Your task to perform on an android device: stop showing notifications on the lock screen Image 0: 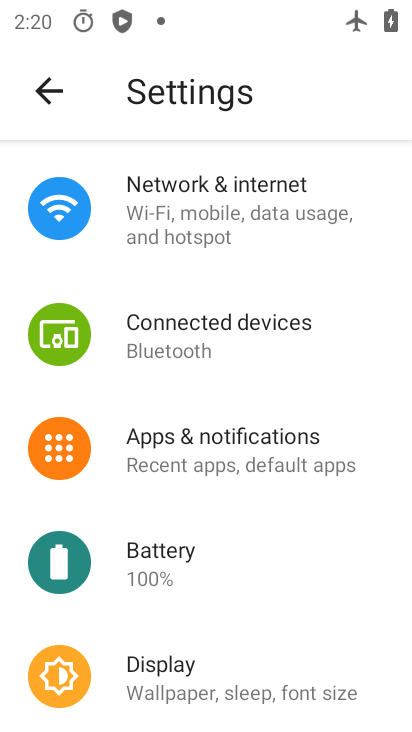
Step 0: drag from (207, 551) to (219, 102)
Your task to perform on an android device: stop showing notifications on the lock screen Image 1: 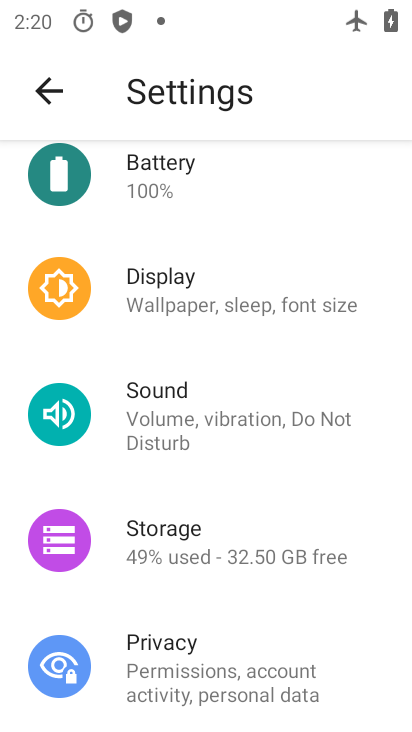
Step 1: drag from (216, 342) to (269, 730)
Your task to perform on an android device: stop showing notifications on the lock screen Image 2: 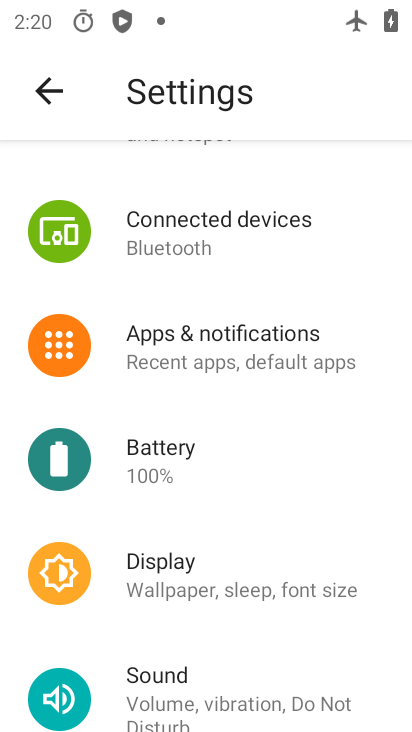
Step 2: click (189, 355)
Your task to perform on an android device: stop showing notifications on the lock screen Image 3: 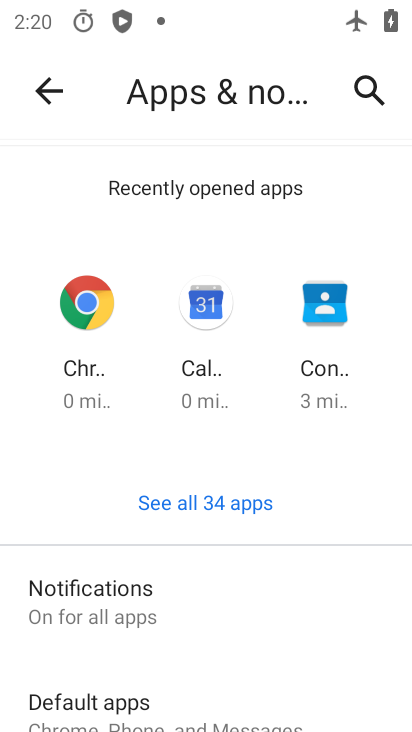
Step 3: drag from (271, 651) to (301, 163)
Your task to perform on an android device: stop showing notifications on the lock screen Image 4: 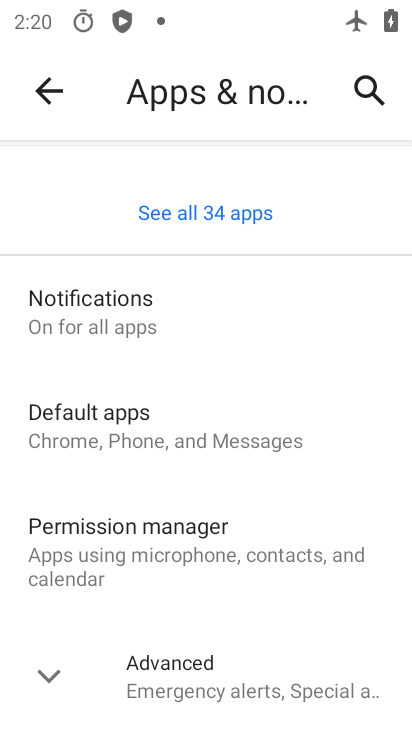
Step 4: click (68, 323)
Your task to perform on an android device: stop showing notifications on the lock screen Image 5: 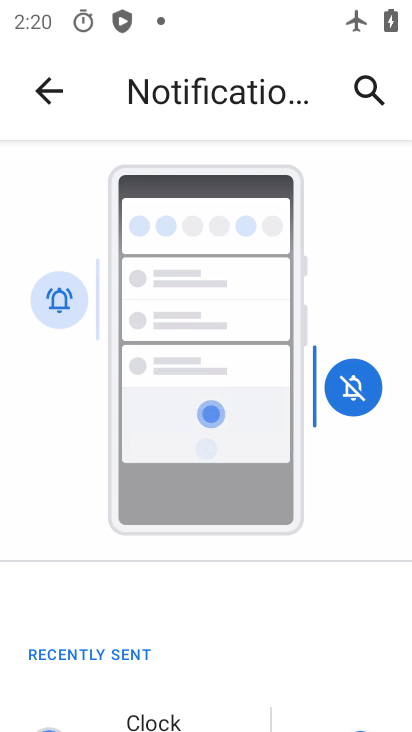
Step 5: drag from (305, 650) to (262, 93)
Your task to perform on an android device: stop showing notifications on the lock screen Image 6: 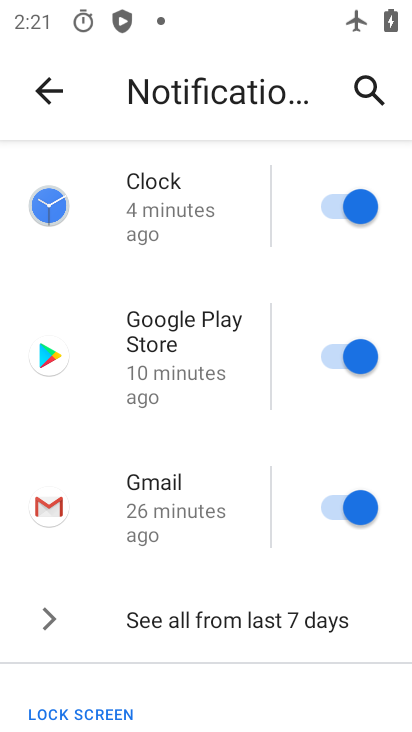
Step 6: drag from (208, 712) to (242, 227)
Your task to perform on an android device: stop showing notifications on the lock screen Image 7: 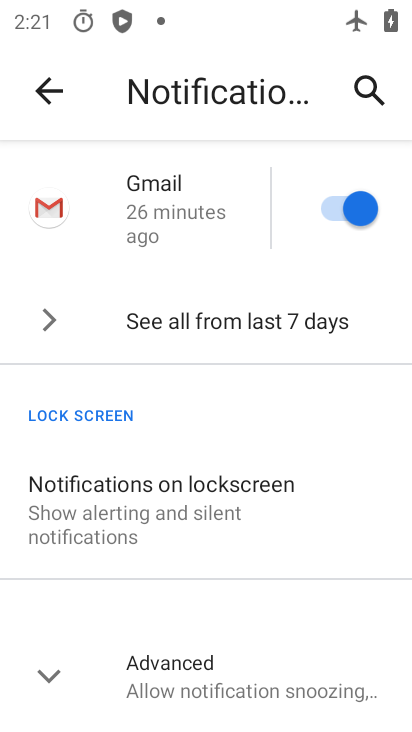
Step 7: click (192, 514)
Your task to perform on an android device: stop showing notifications on the lock screen Image 8: 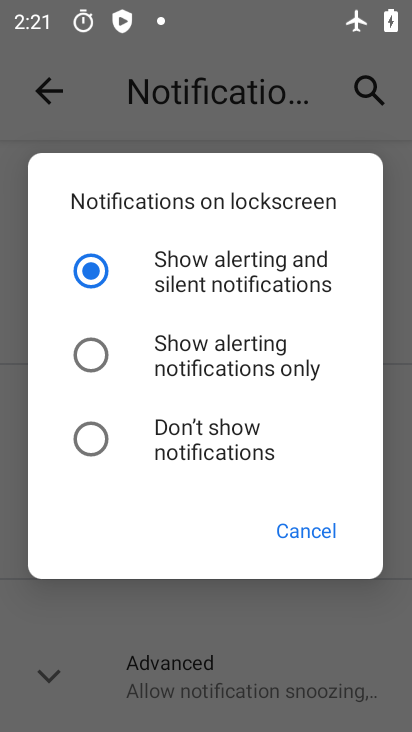
Step 8: click (213, 437)
Your task to perform on an android device: stop showing notifications on the lock screen Image 9: 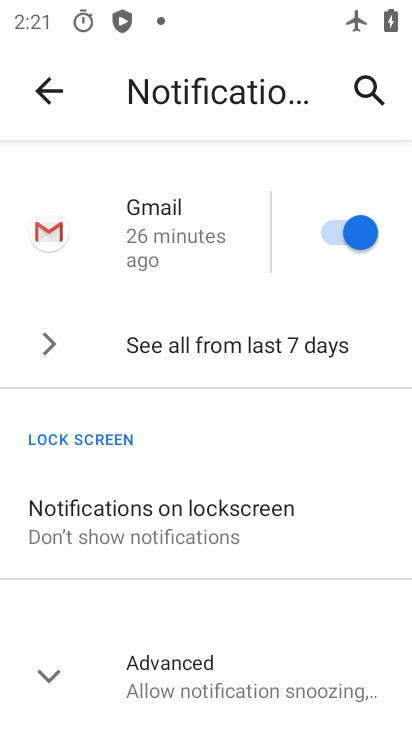
Step 9: task complete